Your task to perform on an android device: refresh tabs in the chrome app Image 0: 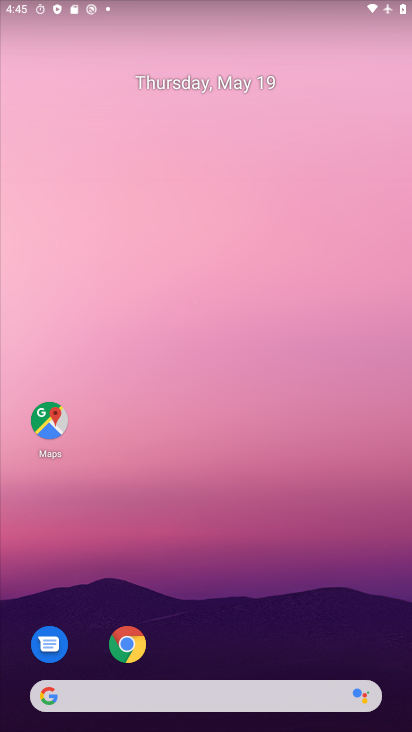
Step 0: click (108, 641)
Your task to perform on an android device: refresh tabs in the chrome app Image 1: 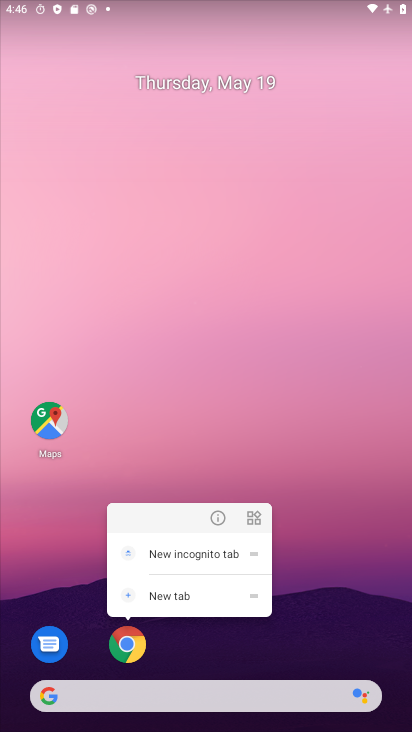
Step 1: click (125, 651)
Your task to perform on an android device: refresh tabs in the chrome app Image 2: 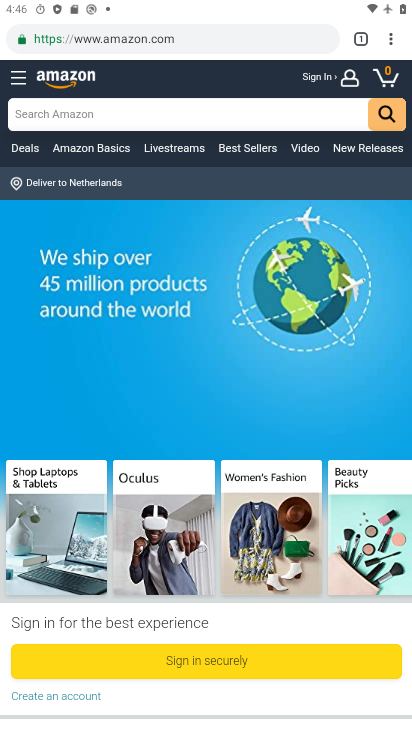
Step 2: click (389, 44)
Your task to perform on an android device: refresh tabs in the chrome app Image 3: 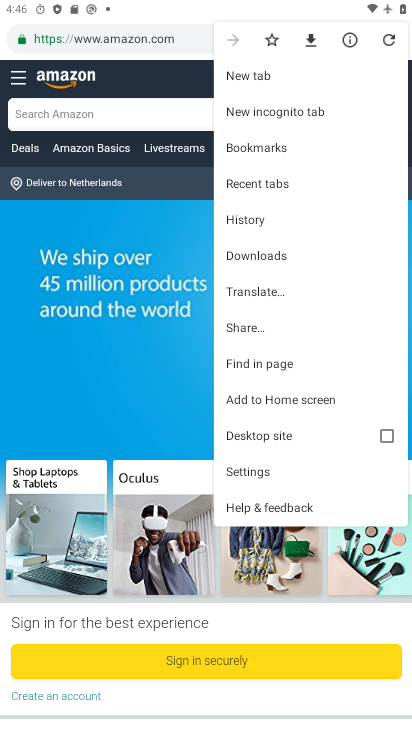
Step 3: click (388, 40)
Your task to perform on an android device: refresh tabs in the chrome app Image 4: 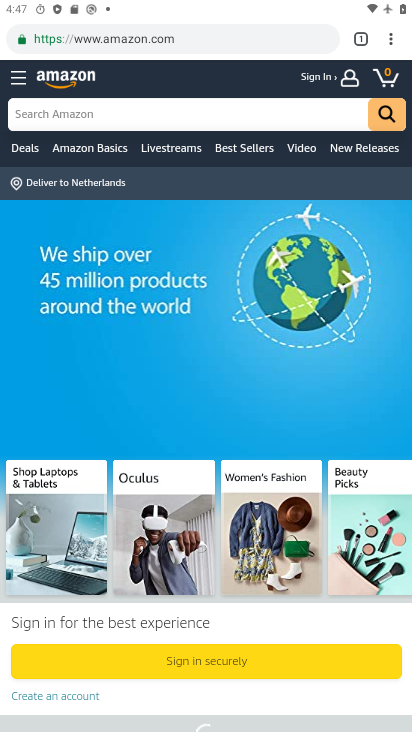
Step 4: task complete